Your task to perform on an android device: empty trash in google photos Image 0: 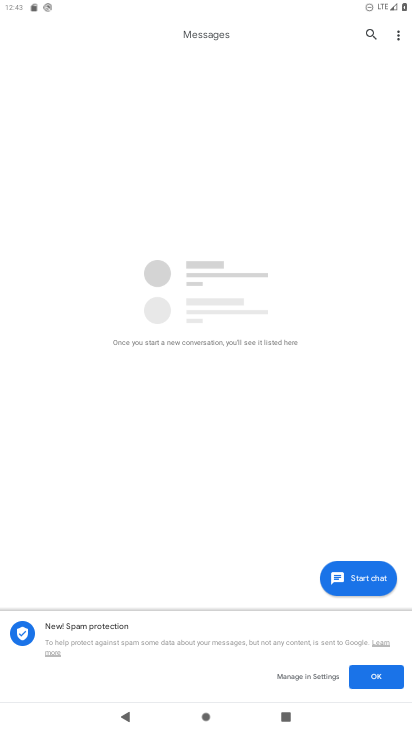
Step 0: press home button
Your task to perform on an android device: empty trash in google photos Image 1: 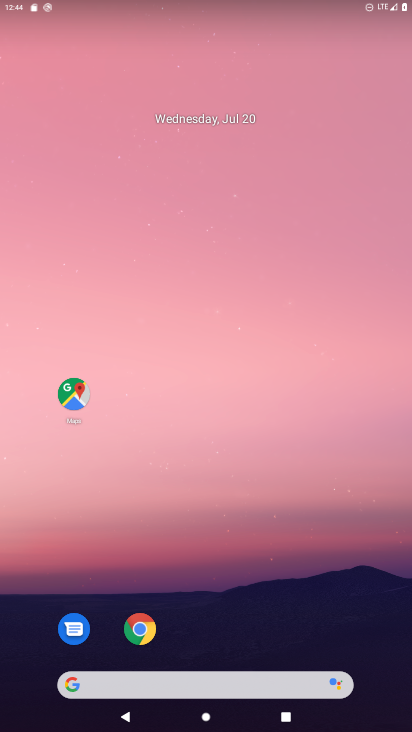
Step 1: drag from (186, 607) to (167, 116)
Your task to perform on an android device: empty trash in google photos Image 2: 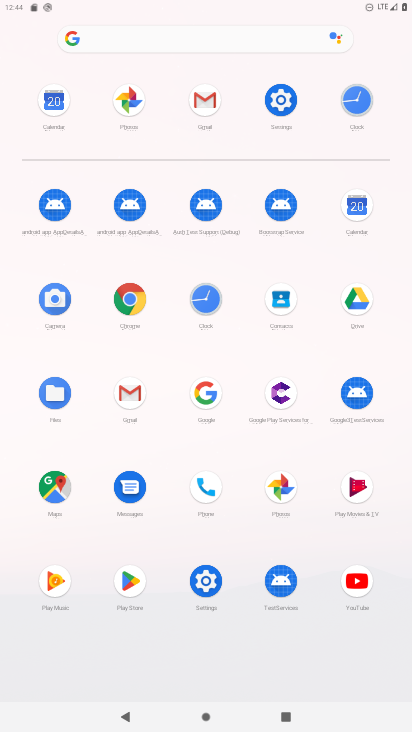
Step 2: click (280, 506)
Your task to perform on an android device: empty trash in google photos Image 3: 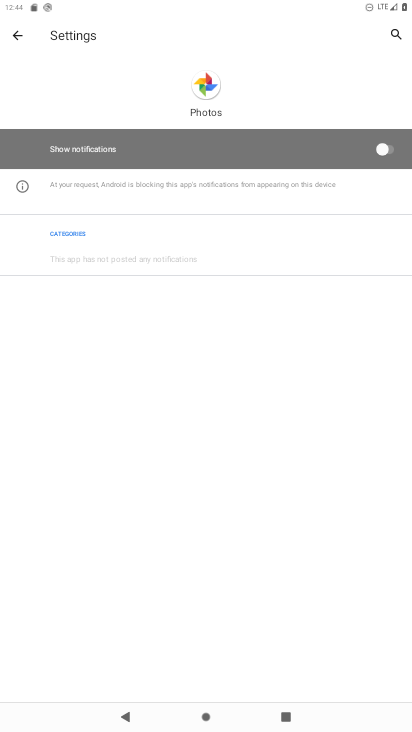
Step 3: click (17, 34)
Your task to perform on an android device: empty trash in google photos Image 4: 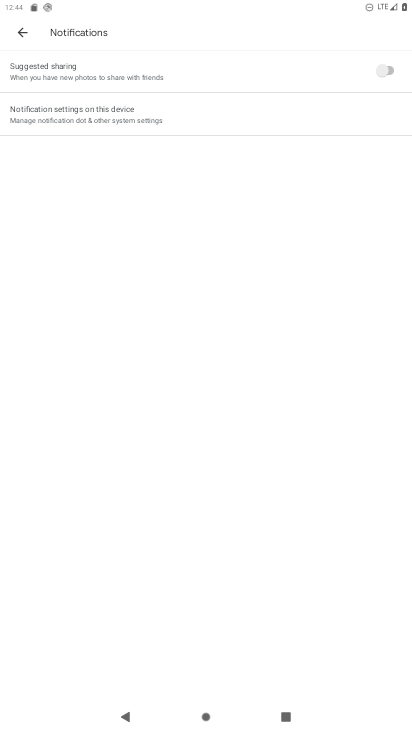
Step 4: click (8, 34)
Your task to perform on an android device: empty trash in google photos Image 5: 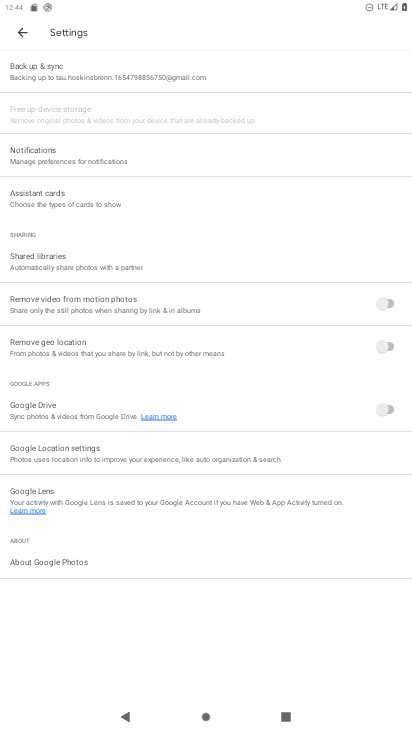
Step 5: click (14, 34)
Your task to perform on an android device: empty trash in google photos Image 6: 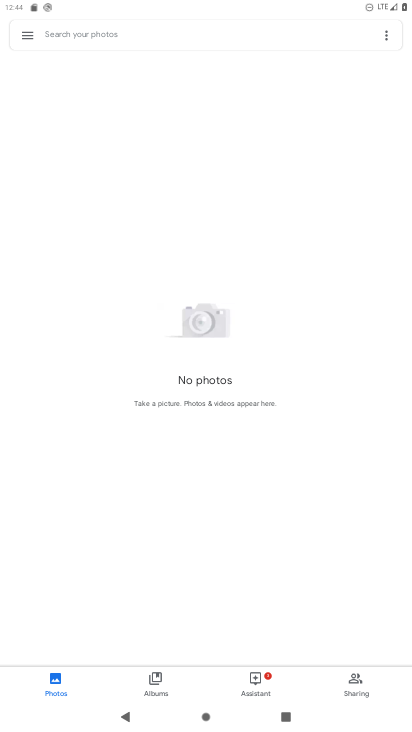
Step 6: click (22, 29)
Your task to perform on an android device: empty trash in google photos Image 7: 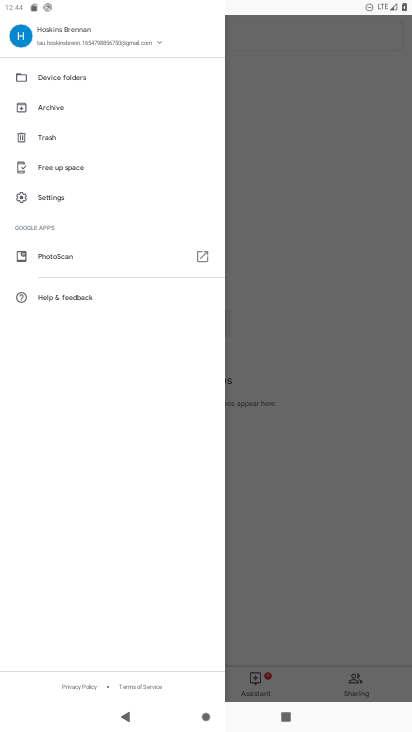
Step 7: click (47, 140)
Your task to perform on an android device: empty trash in google photos Image 8: 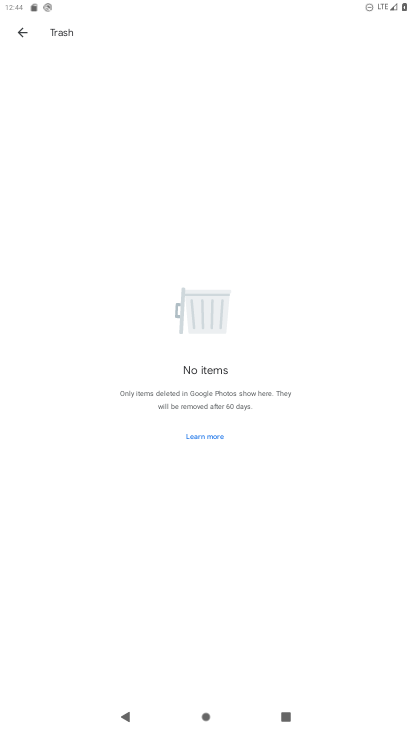
Step 8: task complete